Your task to perform on an android device: delete browsing data in the chrome app Image 0: 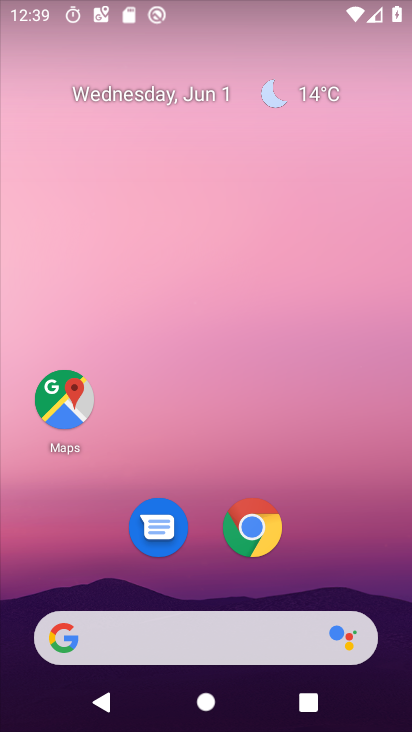
Step 0: click (255, 534)
Your task to perform on an android device: delete browsing data in the chrome app Image 1: 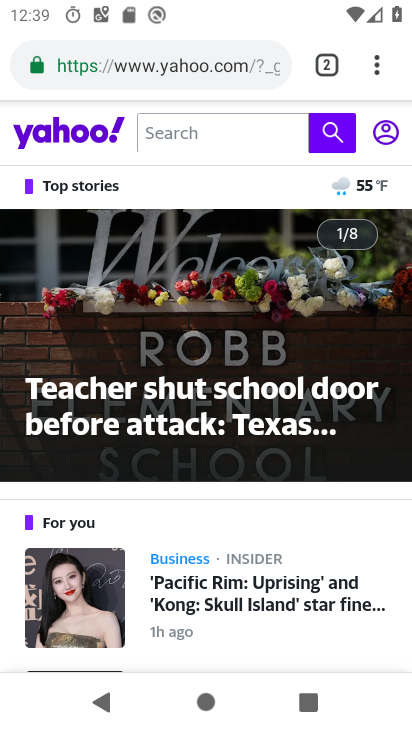
Step 1: click (377, 61)
Your task to perform on an android device: delete browsing data in the chrome app Image 2: 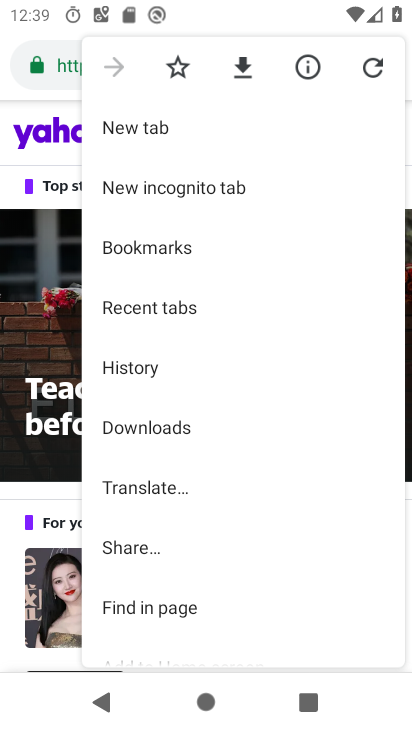
Step 2: drag from (264, 563) to (257, 135)
Your task to perform on an android device: delete browsing data in the chrome app Image 3: 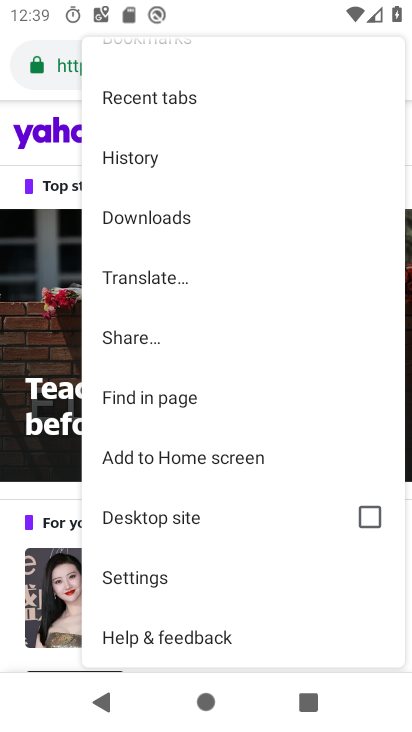
Step 3: click (143, 576)
Your task to perform on an android device: delete browsing data in the chrome app Image 4: 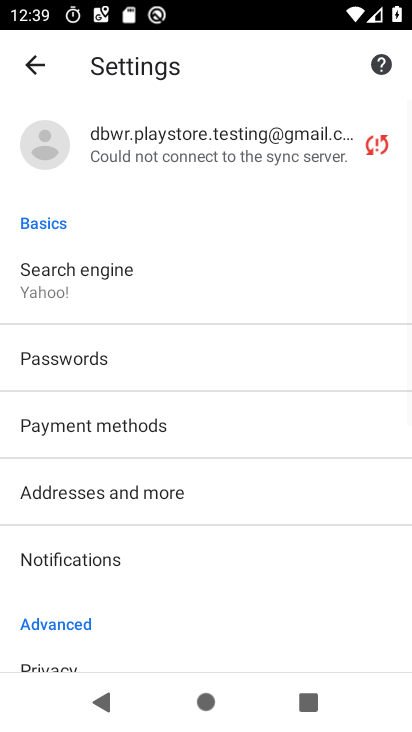
Step 4: drag from (144, 602) to (166, 395)
Your task to perform on an android device: delete browsing data in the chrome app Image 5: 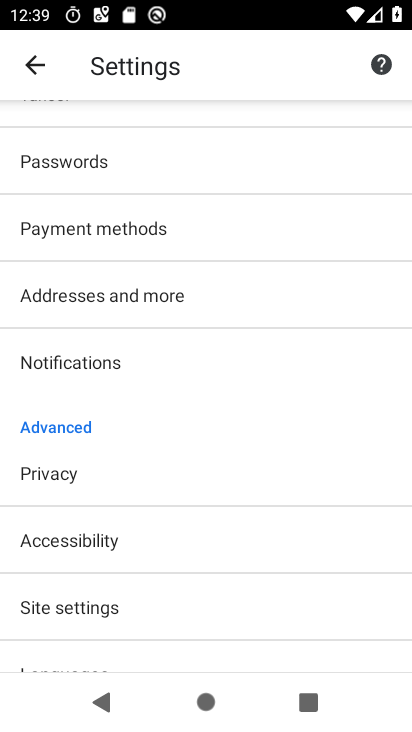
Step 5: click (60, 473)
Your task to perform on an android device: delete browsing data in the chrome app Image 6: 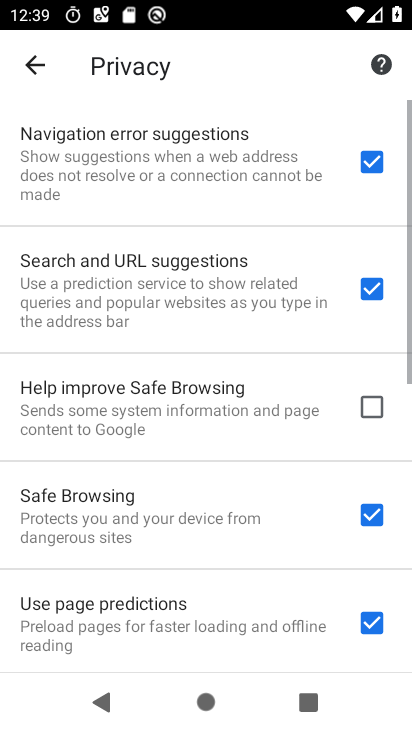
Step 6: drag from (168, 574) to (181, 134)
Your task to perform on an android device: delete browsing data in the chrome app Image 7: 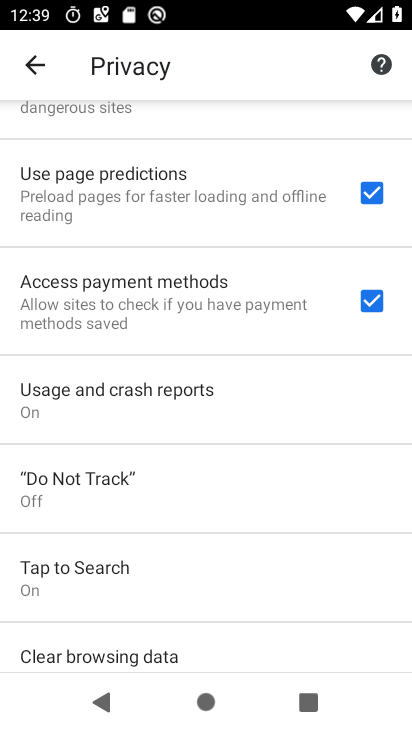
Step 7: drag from (182, 555) to (177, 311)
Your task to perform on an android device: delete browsing data in the chrome app Image 8: 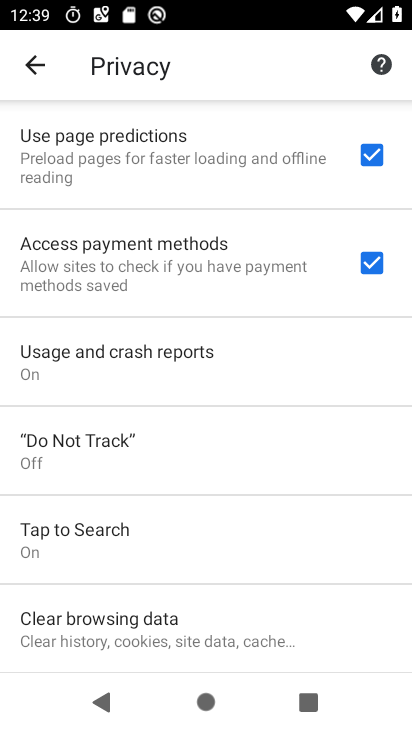
Step 8: click (110, 622)
Your task to perform on an android device: delete browsing data in the chrome app Image 9: 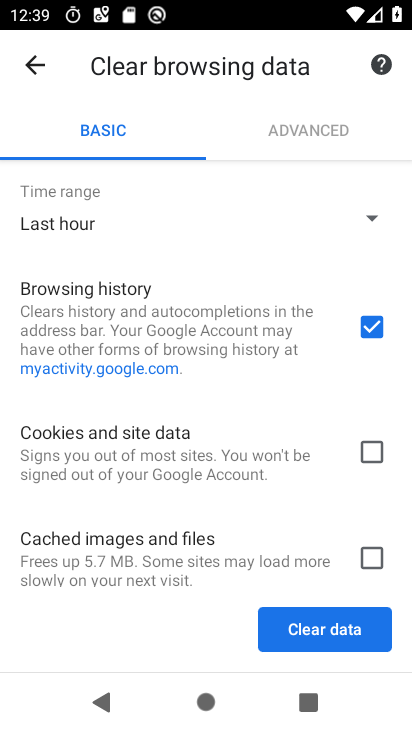
Step 9: click (323, 623)
Your task to perform on an android device: delete browsing data in the chrome app Image 10: 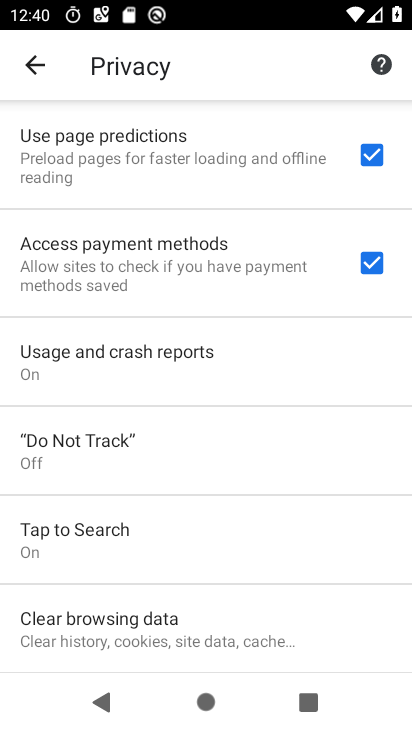
Step 10: task complete